Your task to perform on an android device: What's on my calendar today? Image 0: 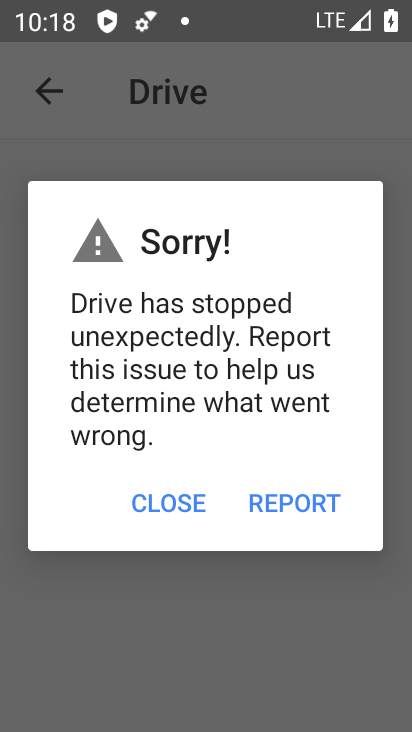
Step 0: press home button
Your task to perform on an android device: What's on my calendar today? Image 1: 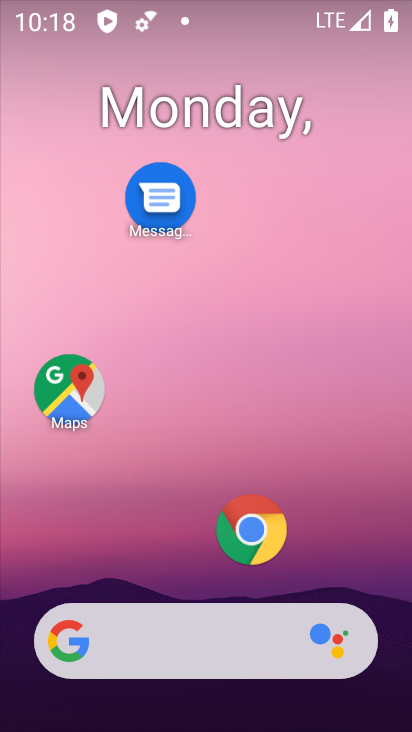
Step 1: drag from (165, 570) to (172, 223)
Your task to perform on an android device: What's on my calendar today? Image 2: 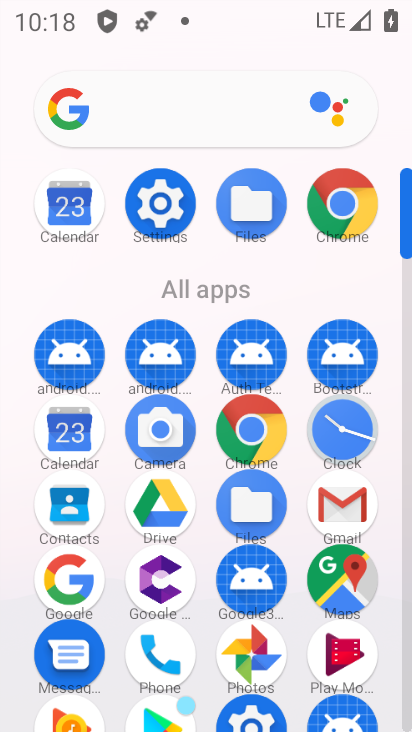
Step 2: click (91, 442)
Your task to perform on an android device: What's on my calendar today? Image 3: 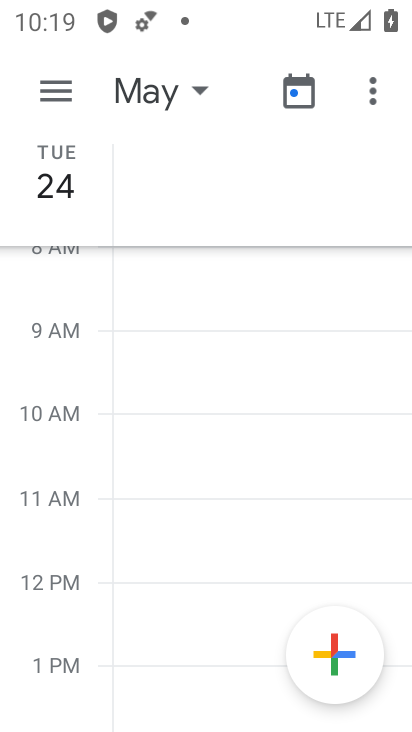
Step 3: task complete